Your task to perform on an android device: Go to internet settings Image 0: 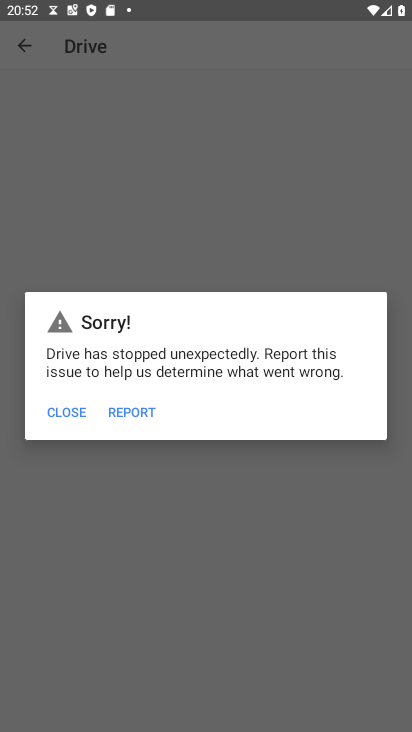
Step 0: press home button
Your task to perform on an android device: Go to internet settings Image 1: 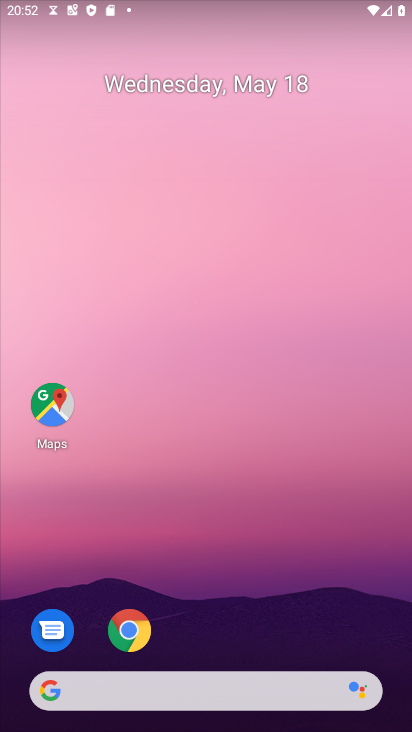
Step 1: drag from (147, 687) to (299, 190)
Your task to perform on an android device: Go to internet settings Image 2: 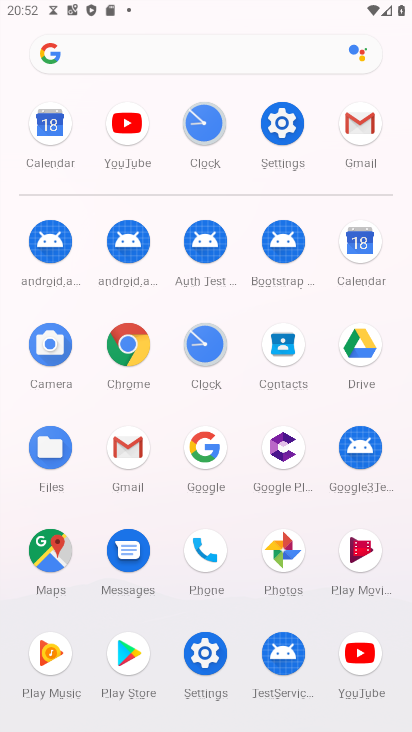
Step 2: click (289, 120)
Your task to perform on an android device: Go to internet settings Image 3: 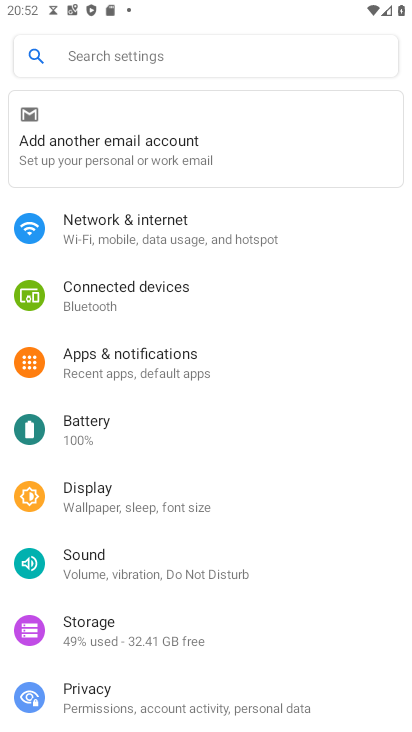
Step 3: click (152, 222)
Your task to perform on an android device: Go to internet settings Image 4: 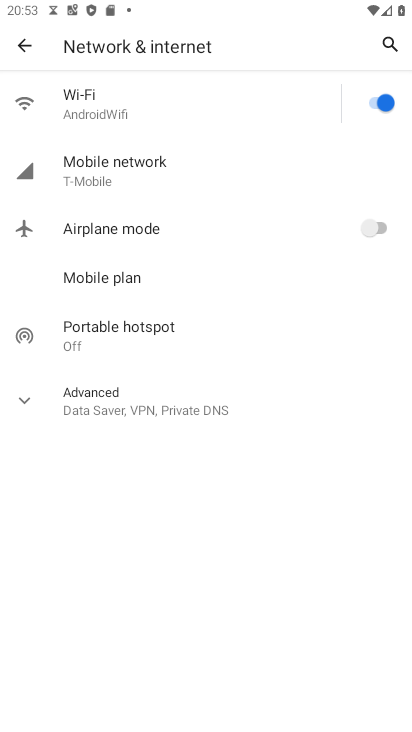
Step 4: task complete